Your task to perform on an android device: turn off location Image 0: 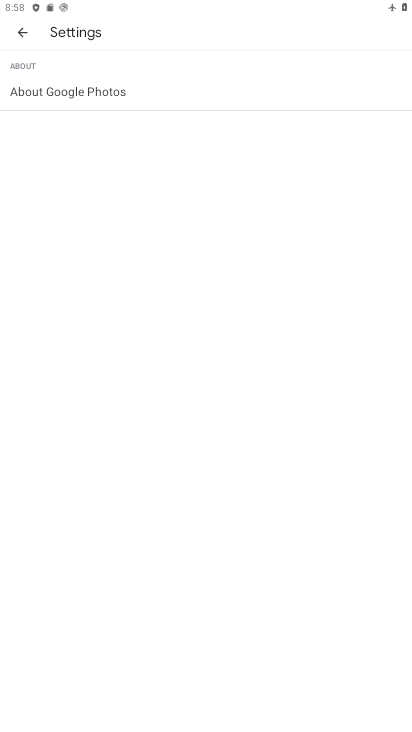
Step 0: press home button
Your task to perform on an android device: turn off location Image 1: 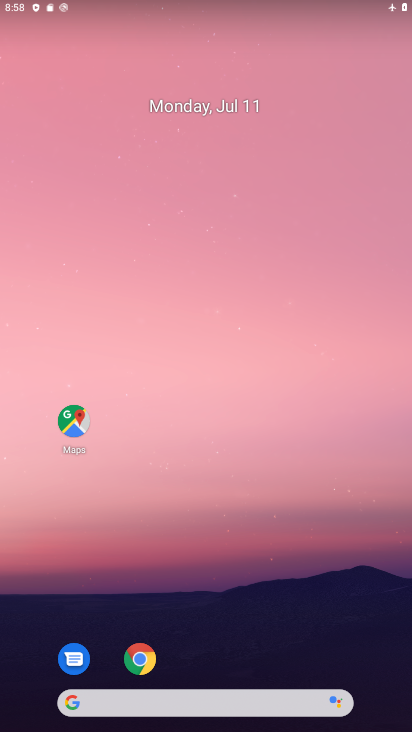
Step 1: drag from (221, 661) to (198, 182)
Your task to perform on an android device: turn off location Image 2: 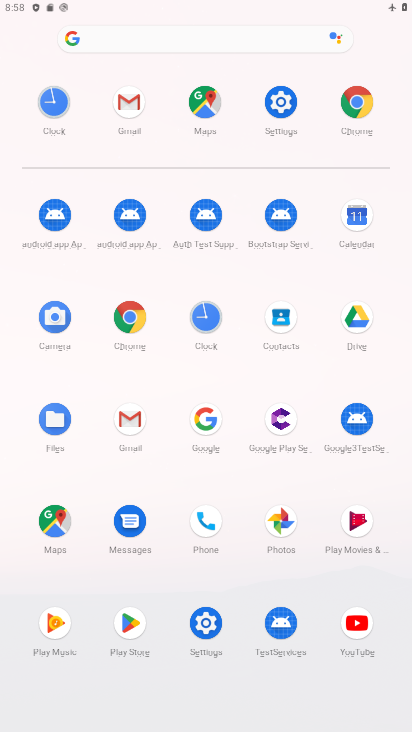
Step 2: click (267, 114)
Your task to perform on an android device: turn off location Image 3: 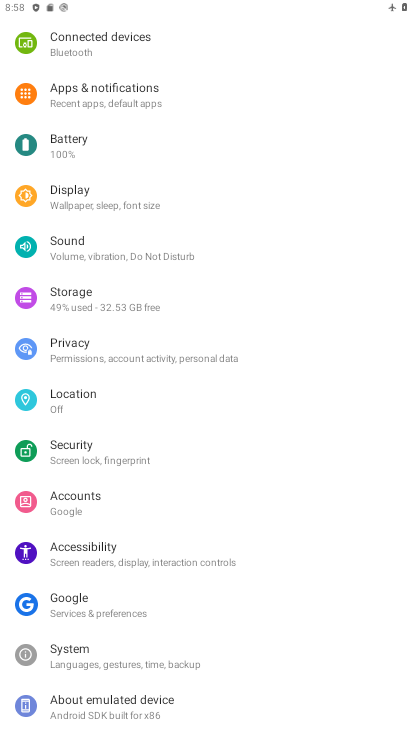
Step 3: click (110, 406)
Your task to perform on an android device: turn off location Image 4: 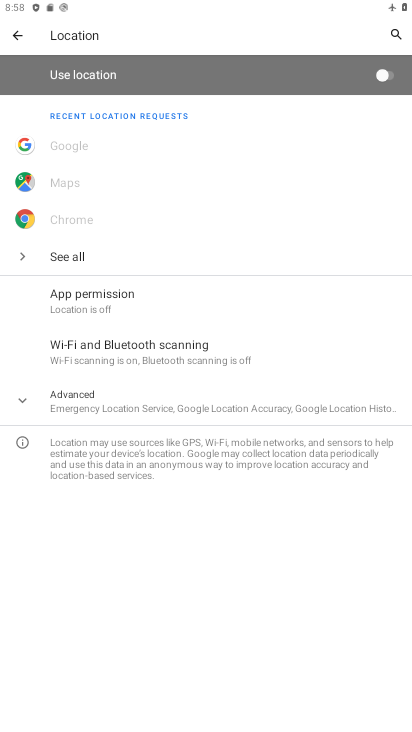
Step 4: task complete